Your task to perform on an android device: Open Android settings Image 0: 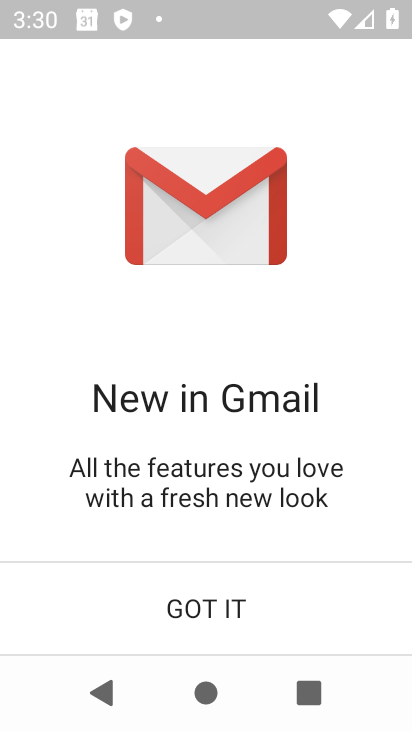
Step 0: press home button
Your task to perform on an android device: Open Android settings Image 1: 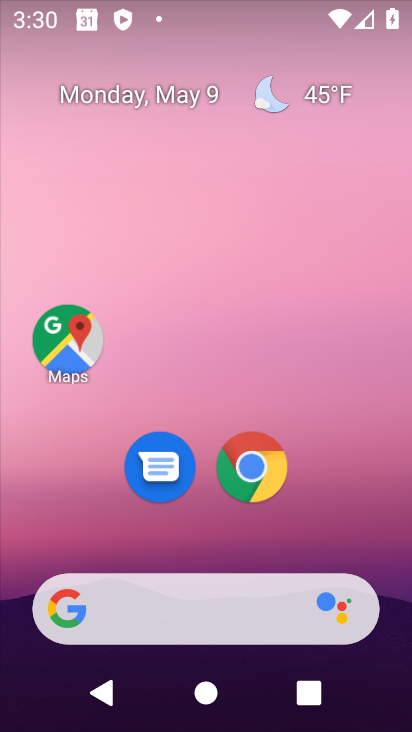
Step 1: drag from (324, 507) to (342, 180)
Your task to perform on an android device: Open Android settings Image 2: 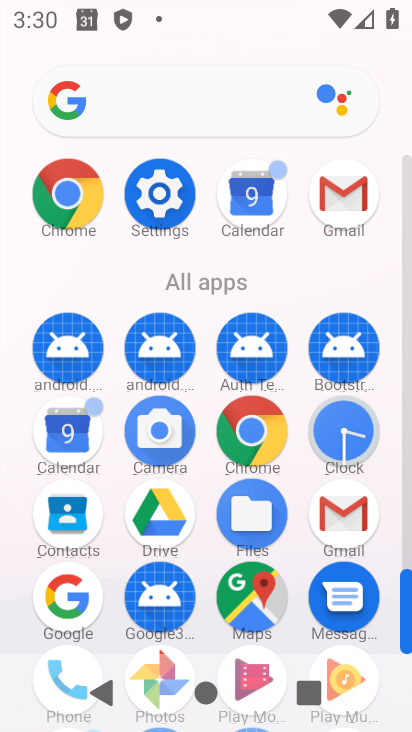
Step 2: click (170, 210)
Your task to perform on an android device: Open Android settings Image 3: 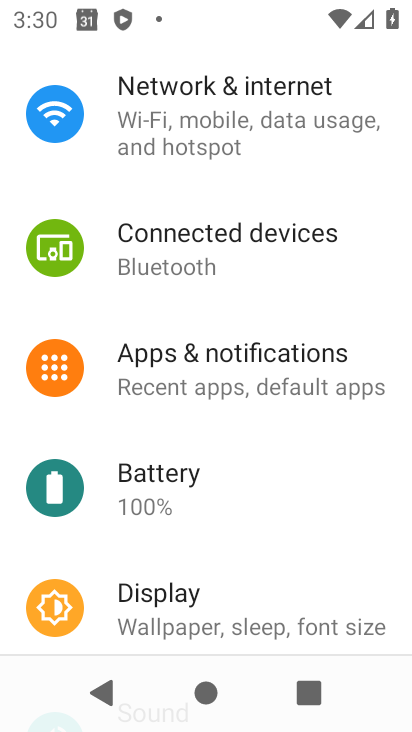
Step 3: drag from (272, 549) to (292, 168)
Your task to perform on an android device: Open Android settings Image 4: 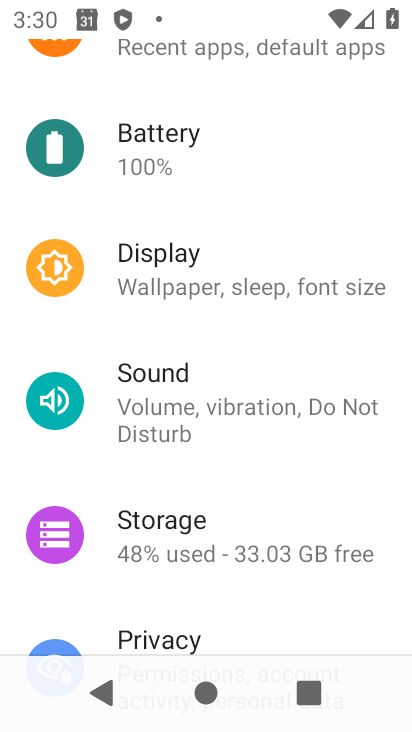
Step 4: drag from (247, 628) to (250, 62)
Your task to perform on an android device: Open Android settings Image 5: 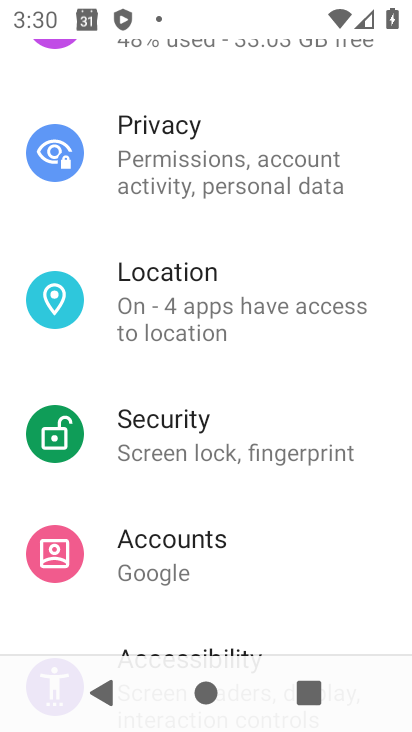
Step 5: drag from (228, 614) to (219, 188)
Your task to perform on an android device: Open Android settings Image 6: 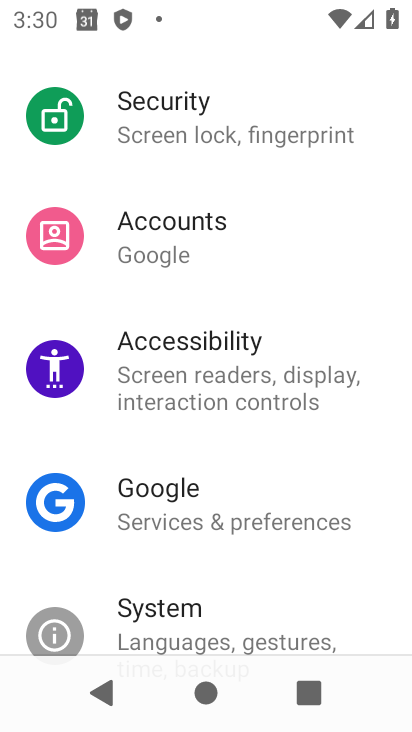
Step 6: drag from (242, 607) to (263, 218)
Your task to perform on an android device: Open Android settings Image 7: 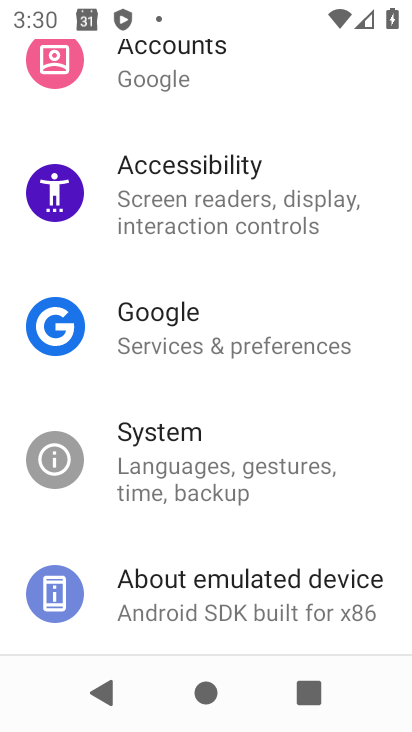
Step 7: click (229, 600)
Your task to perform on an android device: Open Android settings Image 8: 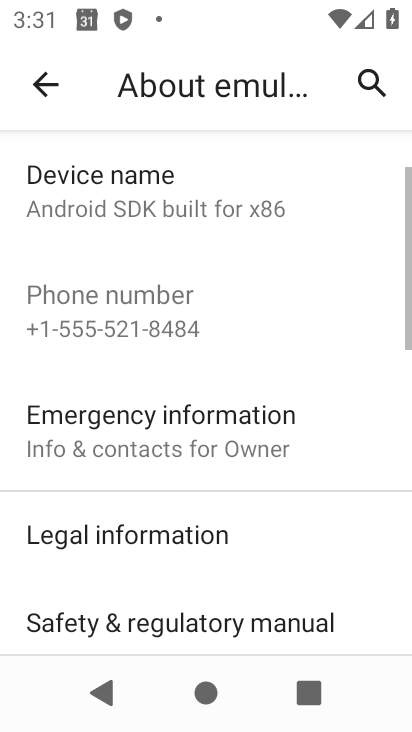
Step 8: drag from (271, 269) to (310, 217)
Your task to perform on an android device: Open Android settings Image 9: 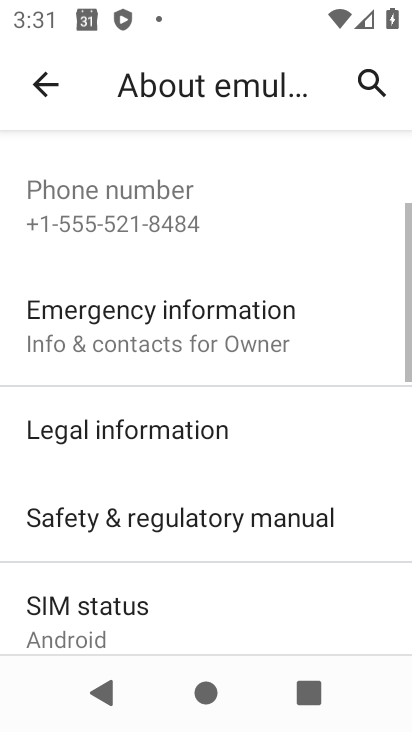
Step 9: drag from (297, 522) to (313, 189)
Your task to perform on an android device: Open Android settings Image 10: 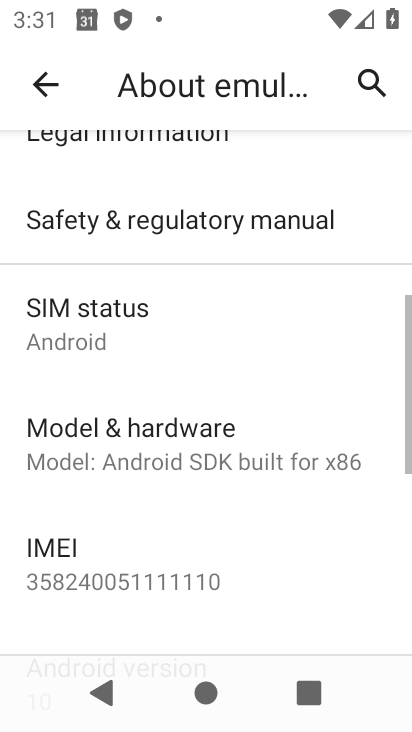
Step 10: drag from (223, 518) to (254, 223)
Your task to perform on an android device: Open Android settings Image 11: 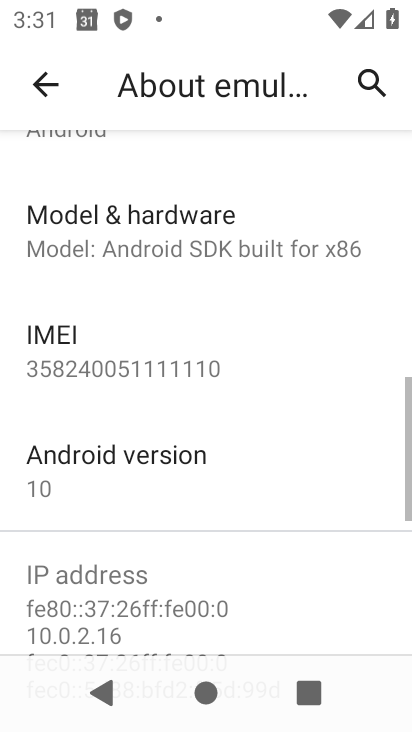
Step 11: click (200, 472)
Your task to perform on an android device: Open Android settings Image 12: 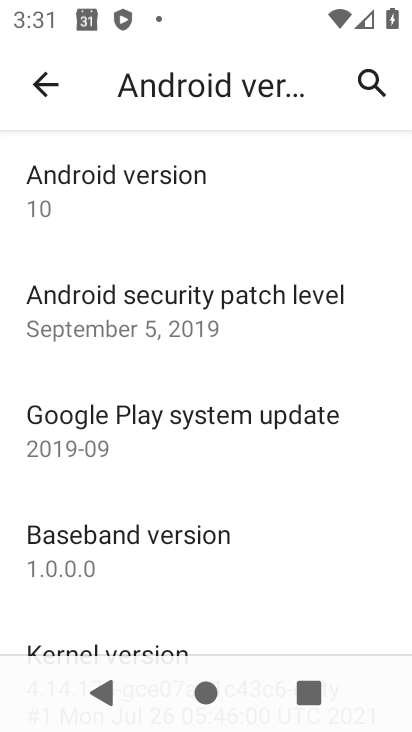
Step 12: click (136, 179)
Your task to perform on an android device: Open Android settings Image 13: 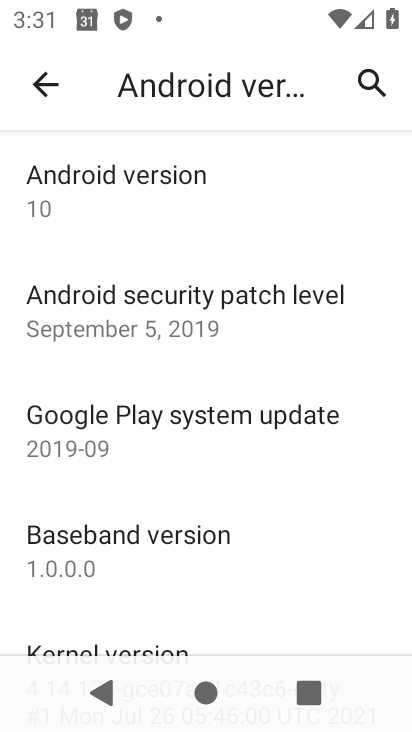
Step 13: task complete